Your task to perform on an android device: See recent photos Image 0: 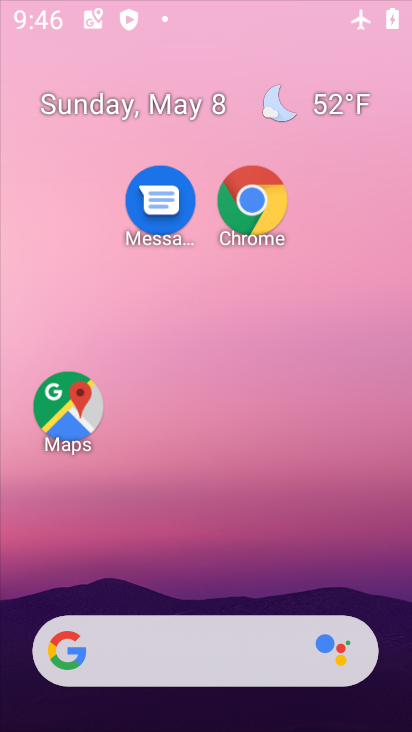
Step 0: drag from (202, 608) to (172, 17)
Your task to perform on an android device: See recent photos Image 1: 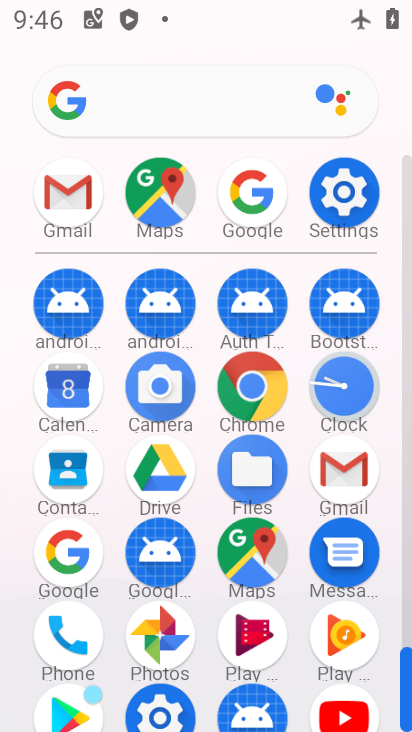
Step 1: click (157, 631)
Your task to perform on an android device: See recent photos Image 2: 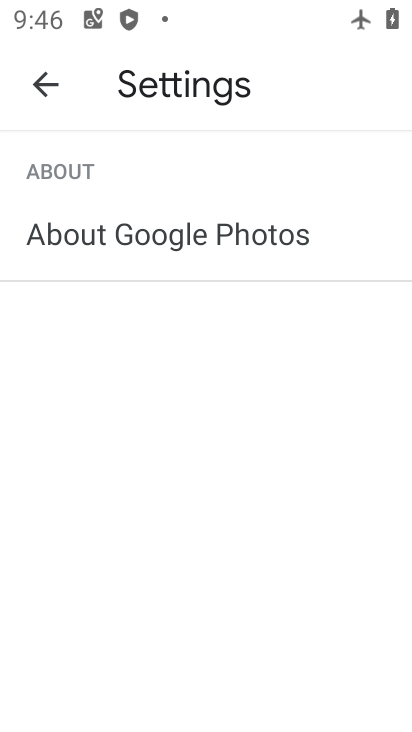
Step 2: click (48, 93)
Your task to perform on an android device: See recent photos Image 3: 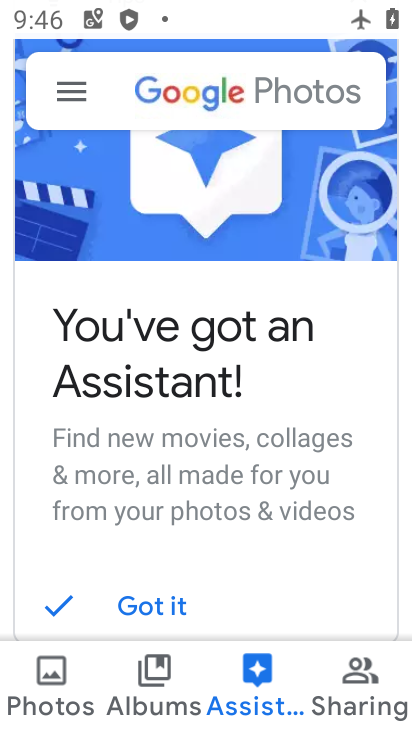
Step 3: click (61, 675)
Your task to perform on an android device: See recent photos Image 4: 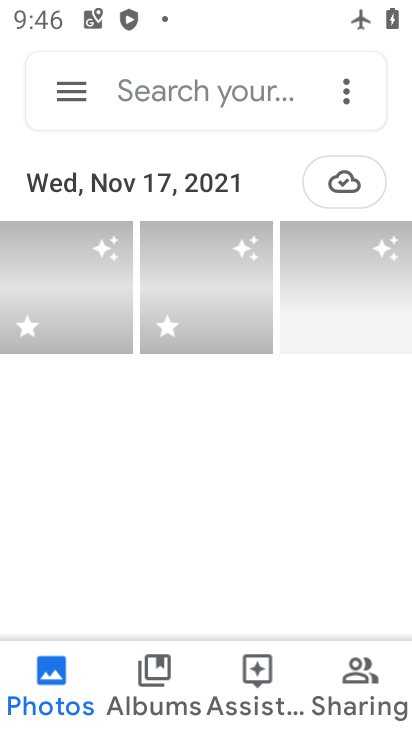
Step 4: task complete